Your task to perform on an android device: Open calendar and show me the third week of next month Image 0: 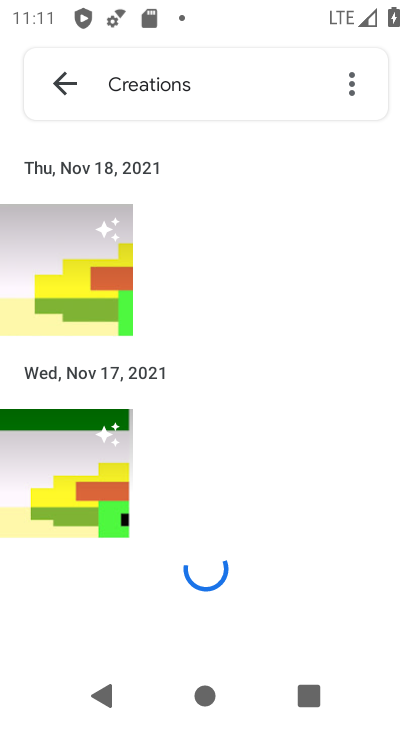
Step 0: press home button
Your task to perform on an android device: Open calendar and show me the third week of next month Image 1: 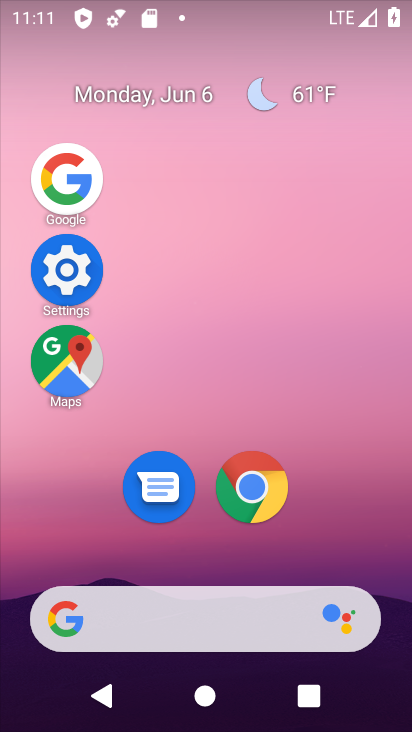
Step 1: drag from (356, 520) to (302, 124)
Your task to perform on an android device: Open calendar and show me the third week of next month Image 2: 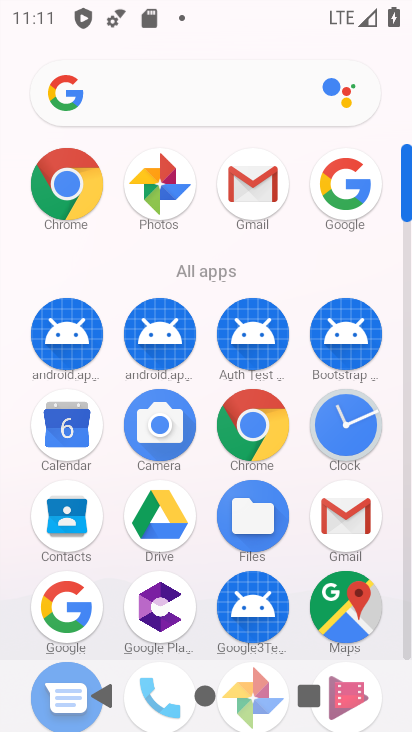
Step 2: drag from (61, 433) to (158, 205)
Your task to perform on an android device: Open calendar and show me the third week of next month Image 3: 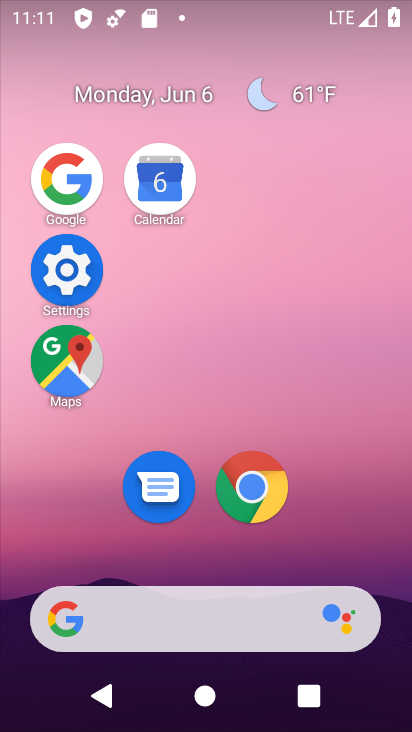
Step 3: click (158, 200)
Your task to perform on an android device: Open calendar and show me the third week of next month Image 4: 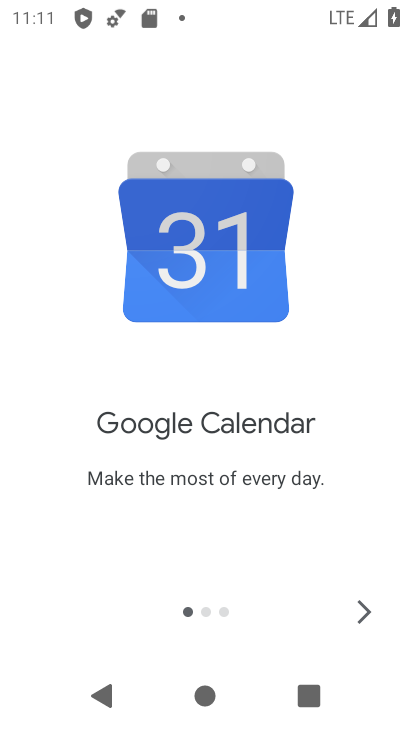
Step 4: click (353, 604)
Your task to perform on an android device: Open calendar and show me the third week of next month Image 5: 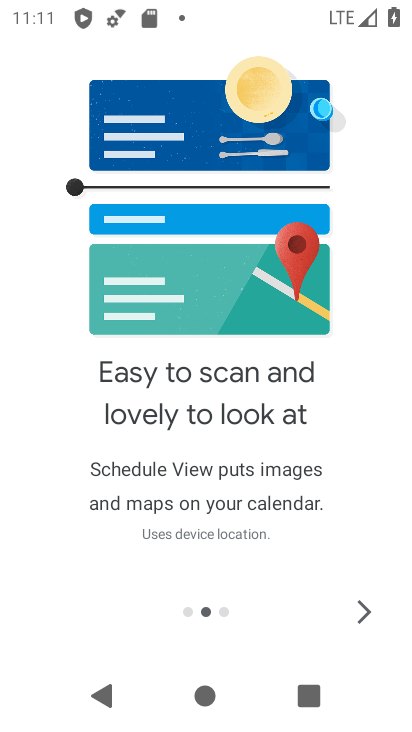
Step 5: click (353, 604)
Your task to perform on an android device: Open calendar and show me the third week of next month Image 6: 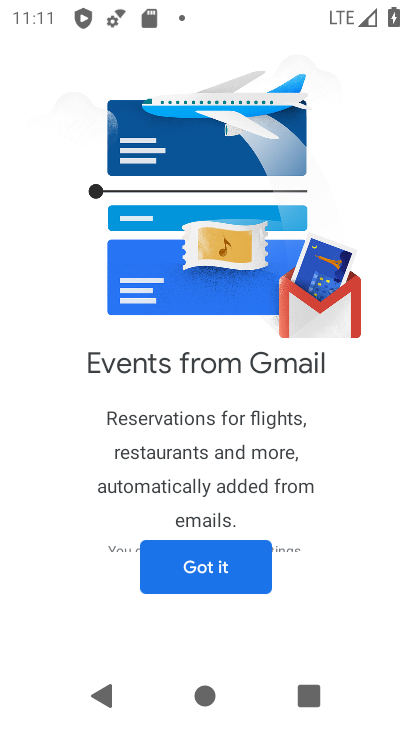
Step 6: click (357, 604)
Your task to perform on an android device: Open calendar and show me the third week of next month Image 7: 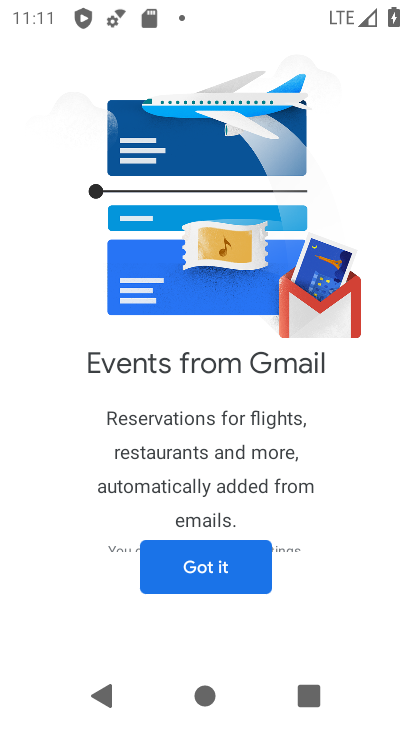
Step 7: click (206, 567)
Your task to perform on an android device: Open calendar and show me the third week of next month Image 8: 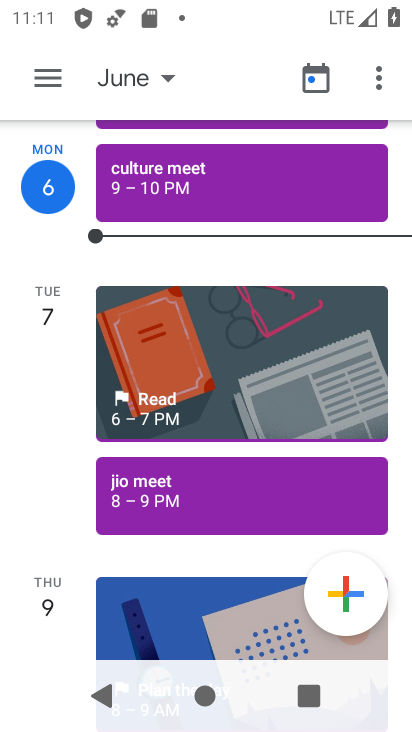
Step 8: click (158, 82)
Your task to perform on an android device: Open calendar and show me the third week of next month Image 9: 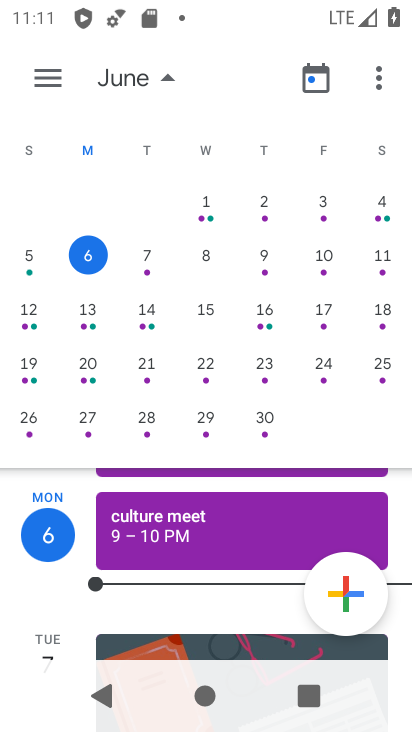
Step 9: drag from (394, 288) to (19, 181)
Your task to perform on an android device: Open calendar and show me the third week of next month Image 10: 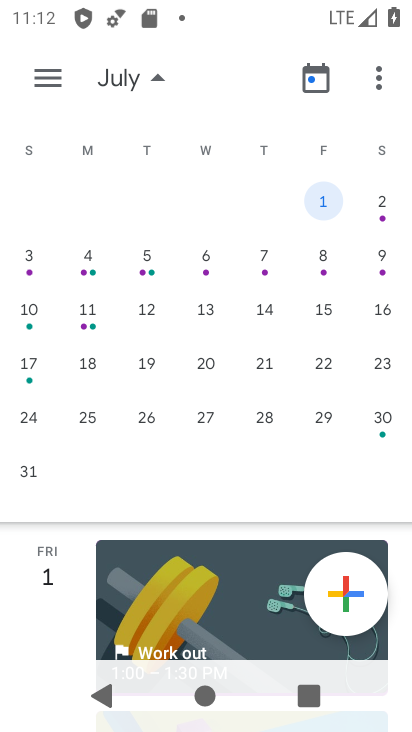
Step 10: click (59, 79)
Your task to perform on an android device: Open calendar and show me the third week of next month Image 11: 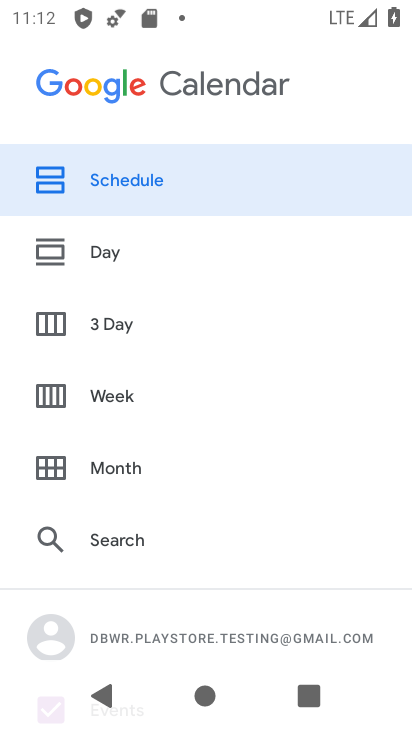
Step 11: click (190, 373)
Your task to perform on an android device: Open calendar and show me the third week of next month Image 12: 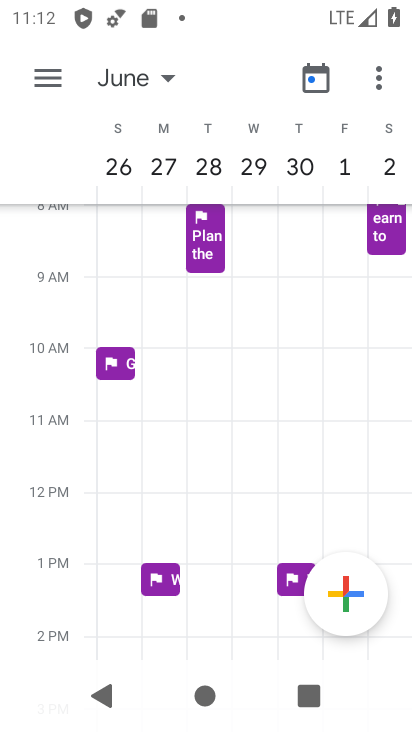
Step 12: task complete